Your task to perform on an android device: Open the phone app and click the voicemail tab. Image 0: 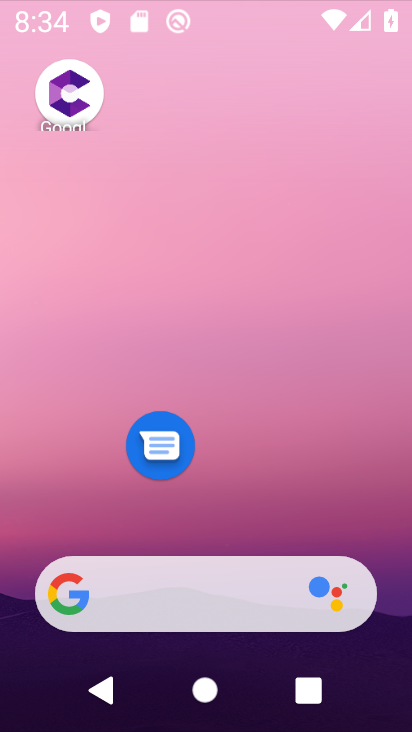
Step 0: press home button
Your task to perform on an android device: Open the phone app and click the voicemail tab. Image 1: 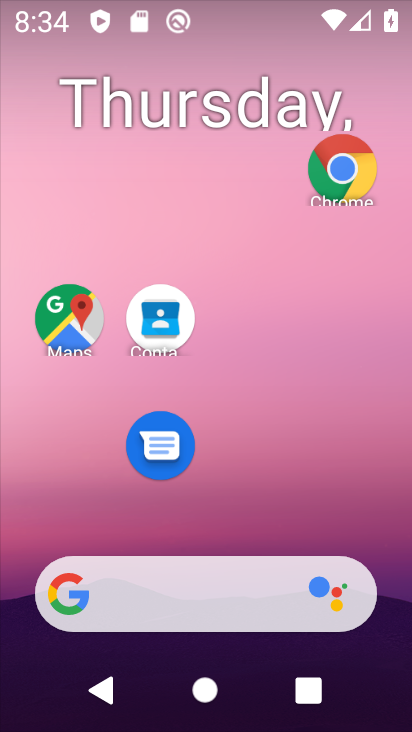
Step 1: drag from (255, 641) to (261, 236)
Your task to perform on an android device: Open the phone app and click the voicemail tab. Image 2: 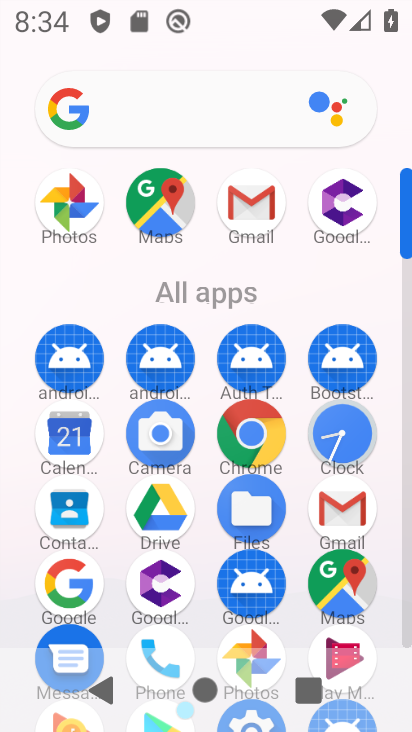
Step 2: drag from (123, 602) to (178, 315)
Your task to perform on an android device: Open the phone app and click the voicemail tab. Image 3: 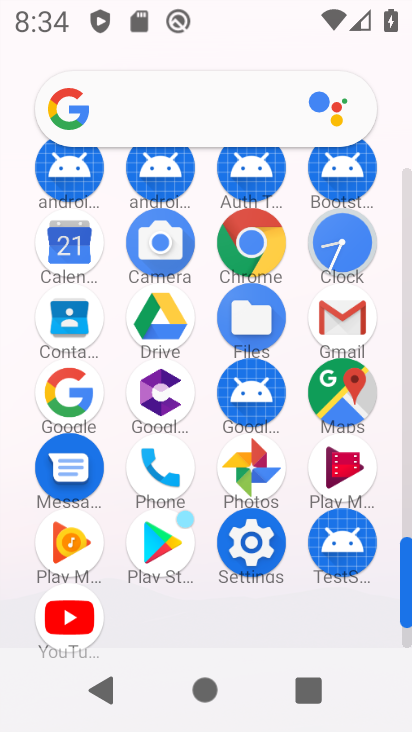
Step 3: click (154, 453)
Your task to perform on an android device: Open the phone app and click the voicemail tab. Image 4: 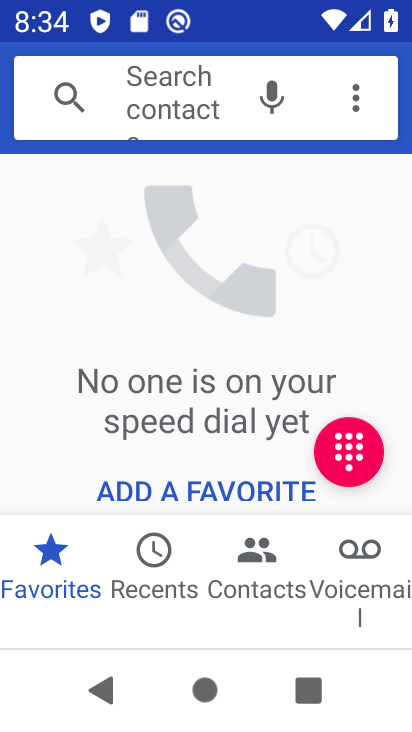
Step 4: click (358, 558)
Your task to perform on an android device: Open the phone app and click the voicemail tab. Image 5: 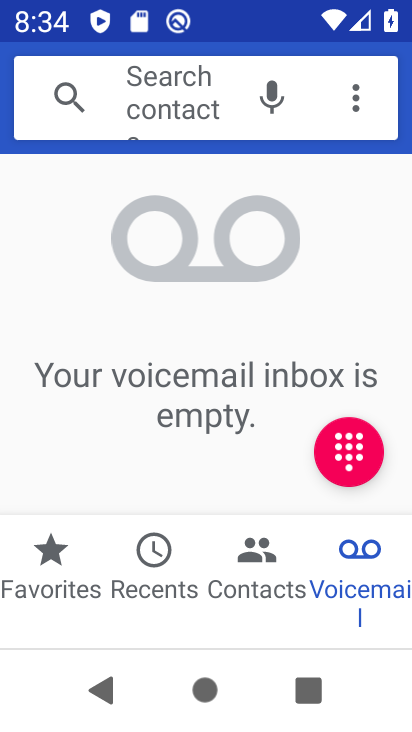
Step 5: task complete